Your task to perform on an android device: Show me the alarms in the clock app Image 0: 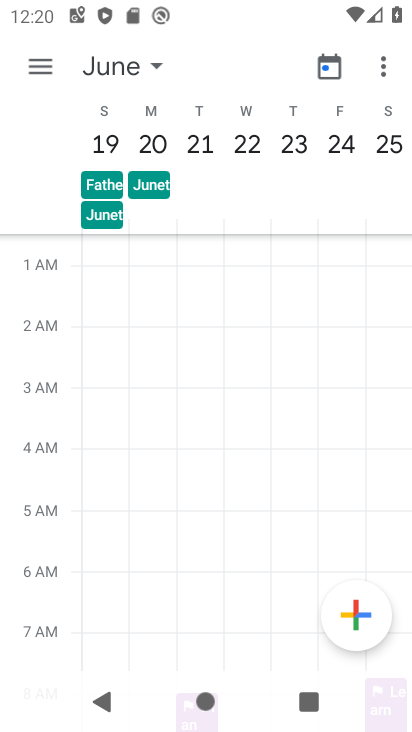
Step 0: press home button
Your task to perform on an android device: Show me the alarms in the clock app Image 1: 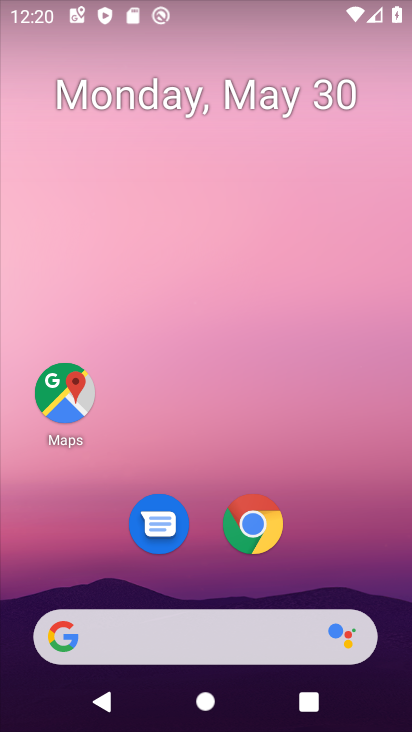
Step 1: drag from (233, 430) to (242, 0)
Your task to perform on an android device: Show me the alarms in the clock app Image 2: 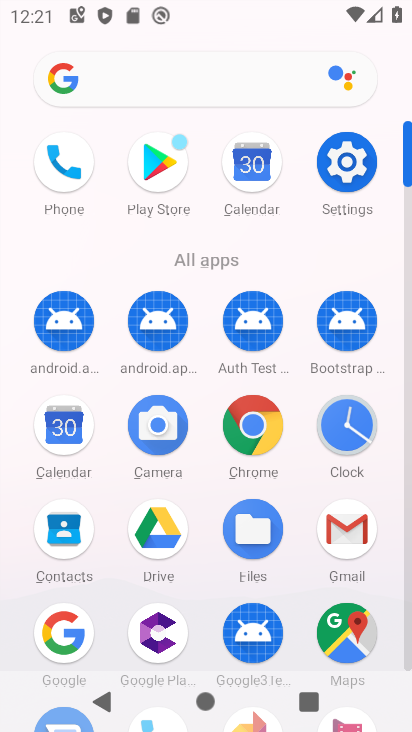
Step 2: click (340, 425)
Your task to perform on an android device: Show me the alarms in the clock app Image 3: 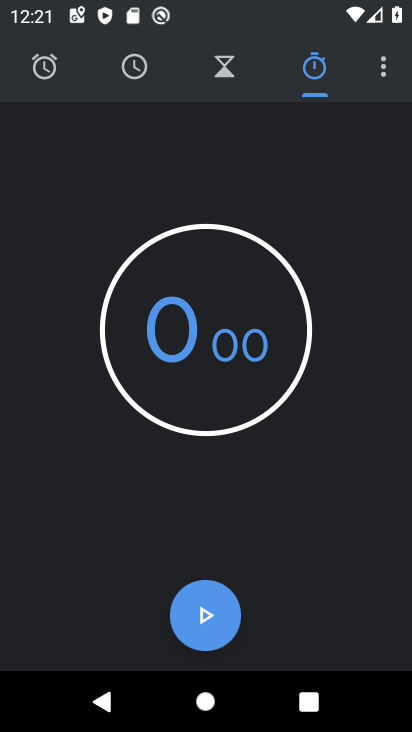
Step 3: click (53, 61)
Your task to perform on an android device: Show me the alarms in the clock app Image 4: 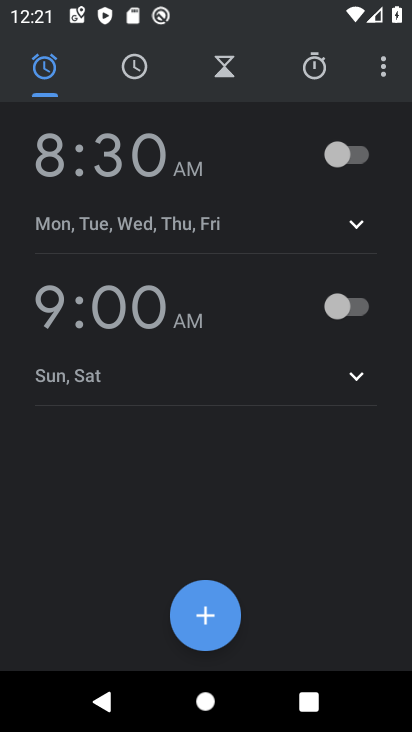
Step 4: task complete